Your task to perform on an android device: Open sound settings Image 0: 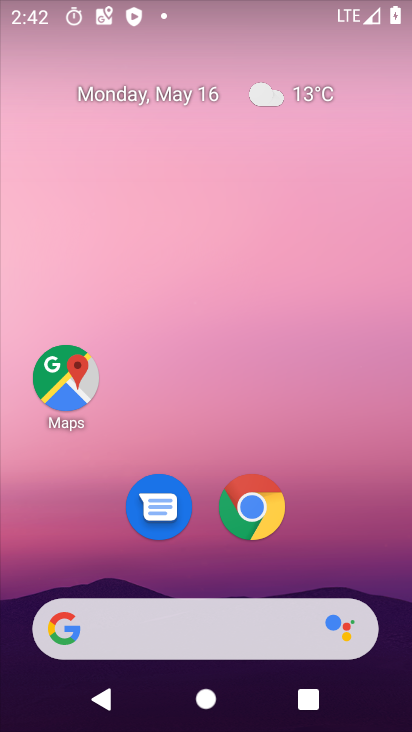
Step 0: drag from (370, 558) to (363, 130)
Your task to perform on an android device: Open sound settings Image 1: 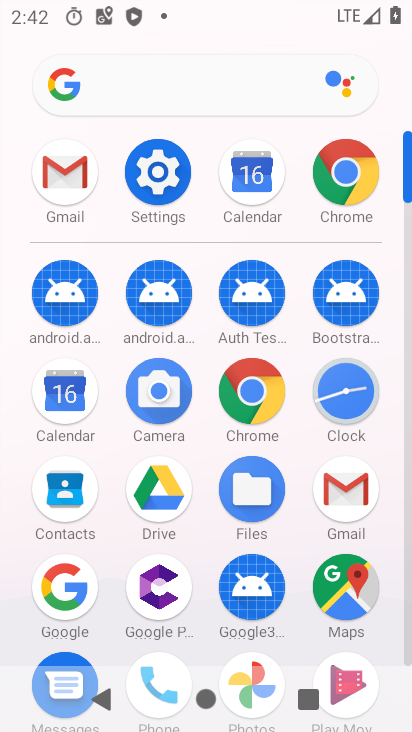
Step 1: click (174, 169)
Your task to perform on an android device: Open sound settings Image 2: 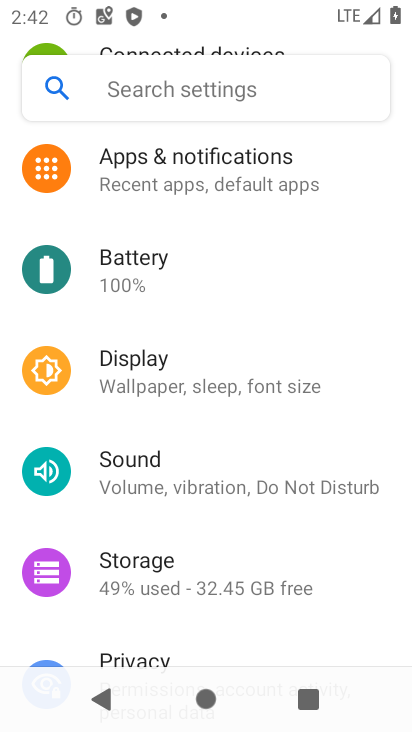
Step 2: drag from (361, 579) to (362, 354)
Your task to perform on an android device: Open sound settings Image 3: 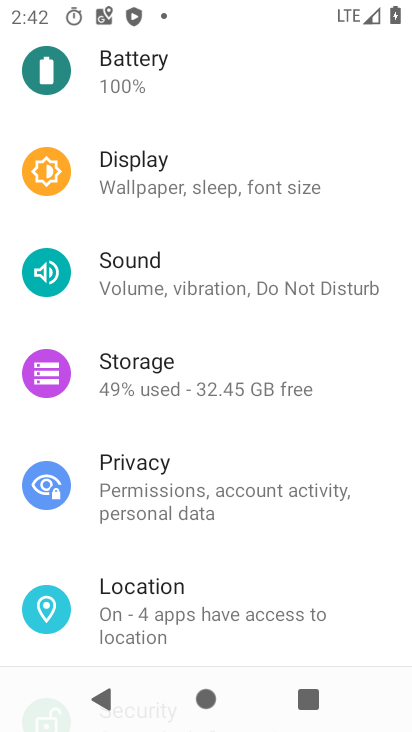
Step 3: drag from (353, 643) to (361, 410)
Your task to perform on an android device: Open sound settings Image 4: 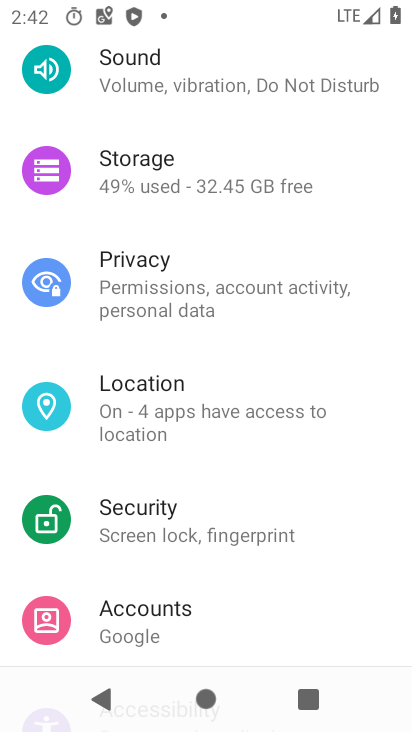
Step 4: drag from (350, 624) to (358, 433)
Your task to perform on an android device: Open sound settings Image 5: 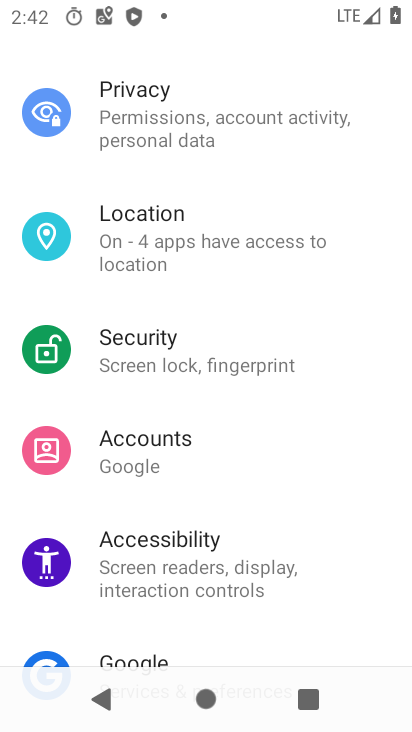
Step 5: drag from (336, 646) to (335, 488)
Your task to perform on an android device: Open sound settings Image 6: 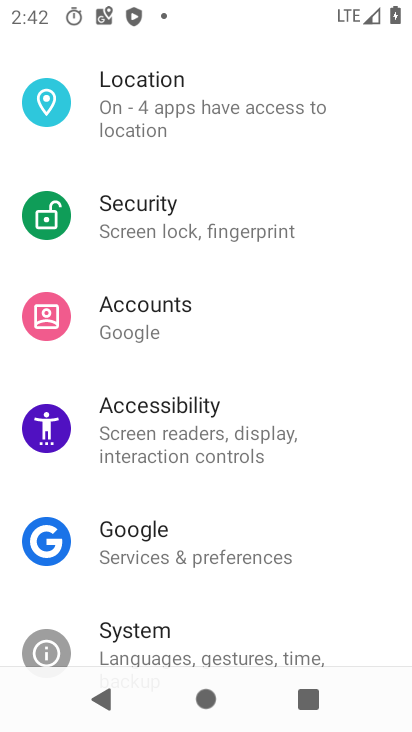
Step 6: drag from (320, 612) to (333, 424)
Your task to perform on an android device: Open sound settings Image 7: 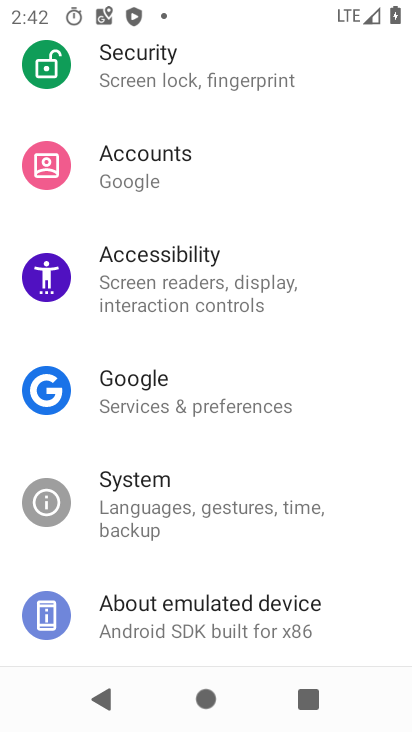
Step 7: drag from (367, 235) to (360, 386)
Your task to perform on an android device: Open sound settings Image 8: 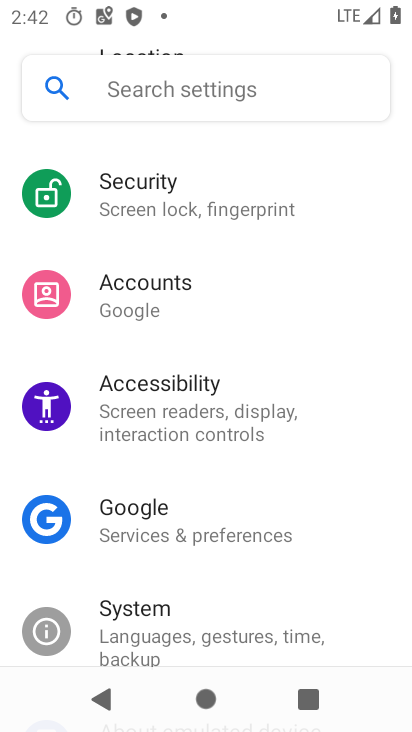
Step 8: drag from (363, 229) to (356, 440)
Your task to perform on an android device: Open sound settings Image 9: 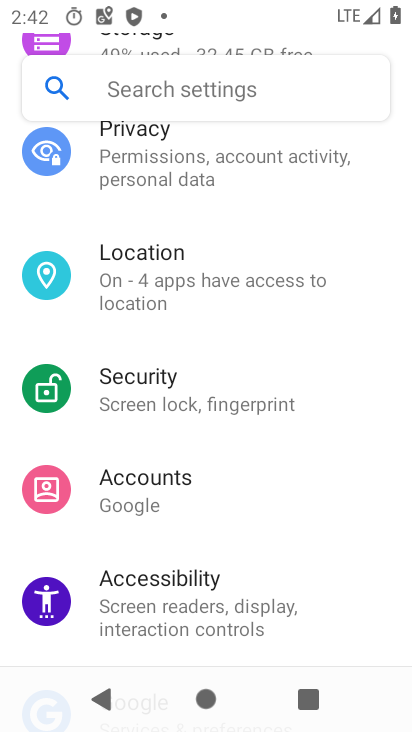
Step 9: drag from (374, 203) to (333, 424)
Your task to perform on an android device: Open sound settings Image 10: 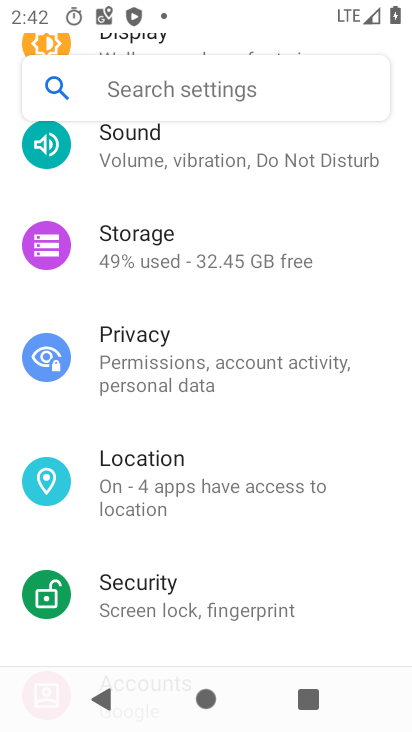
Step 10: drag from (369, 227) to (353, 352)
Your task to perform on an android device: Open sound settings Image 11: 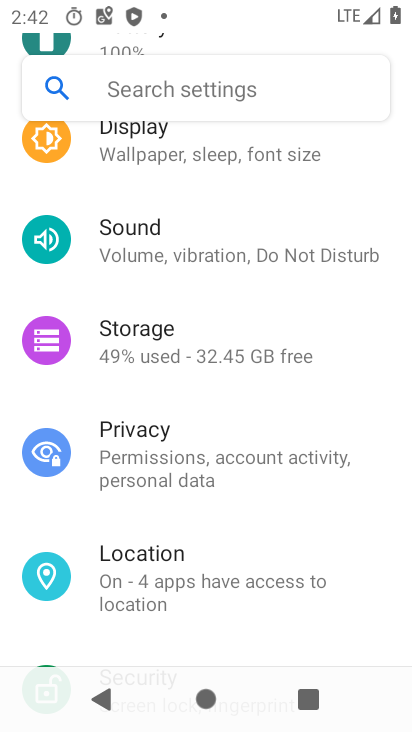
Step 11: drag from (361, 202) to (363, 364)
Your task to perform on an android device: Open sound settings Image 12: 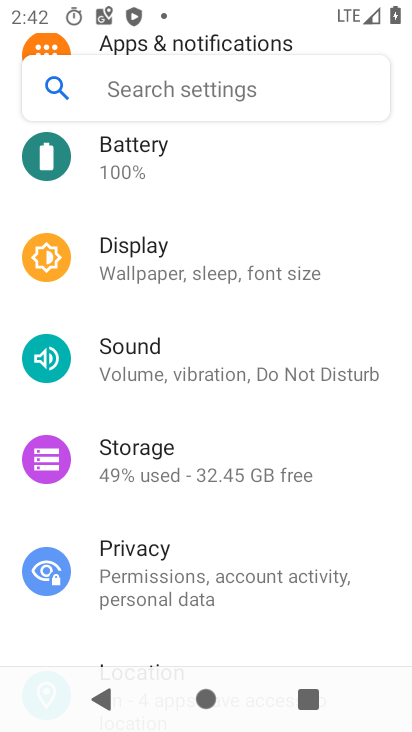
Step 12: drag from (365, 208) to (355, 290)
Your task to perform on an android device: Open sound settings Image 13: 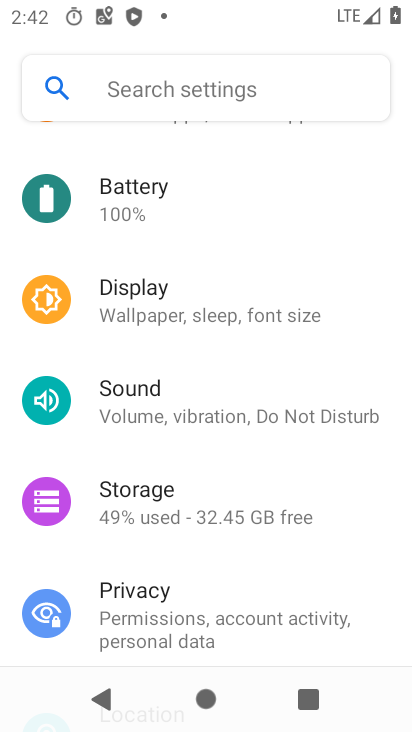
Step 13: click (310, 432)
Your task to perform on an android device: Open sound settings Image 14: 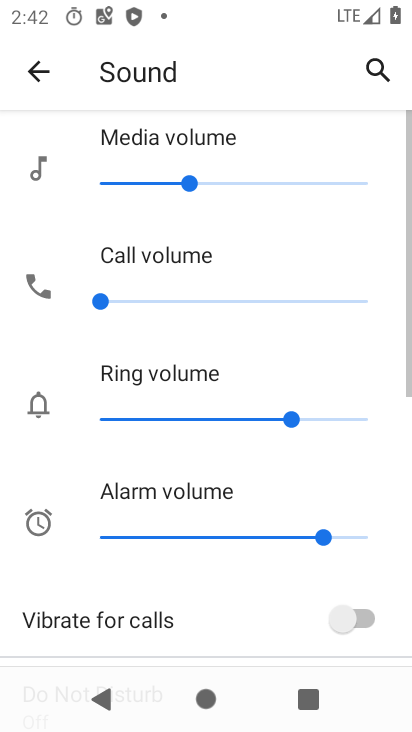
Step 14: task complete